Your task to perform on an android device: Open Chrome and go to settings Image 0: 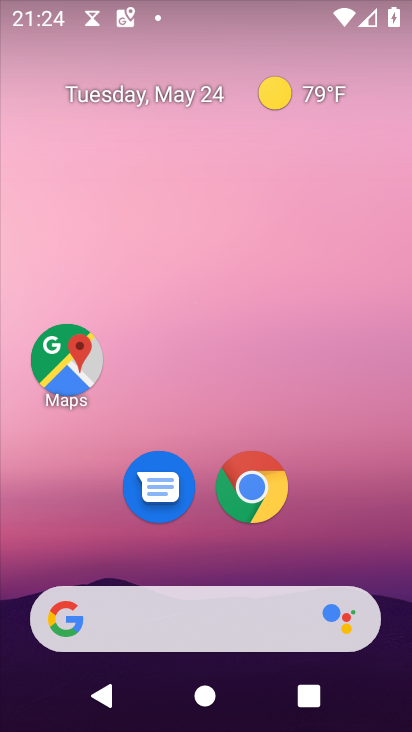
Step 0: press home button
Your task to perform on an android device: Open Chrome and go to settings Image 1: 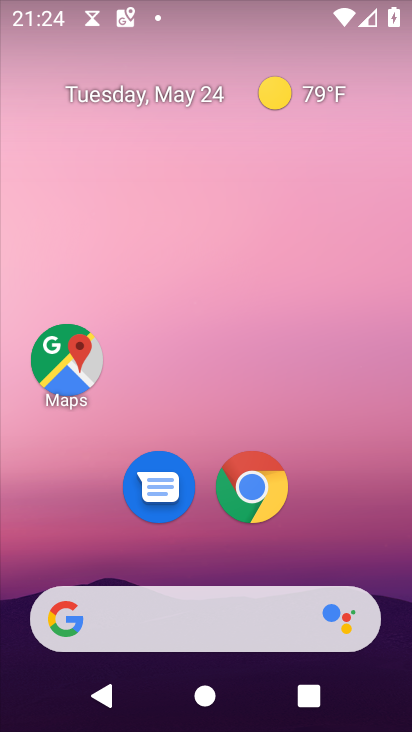
Step 1: click (253, 521)
Your task to perform on an android device: Open Chrome and go to settings Image 2: 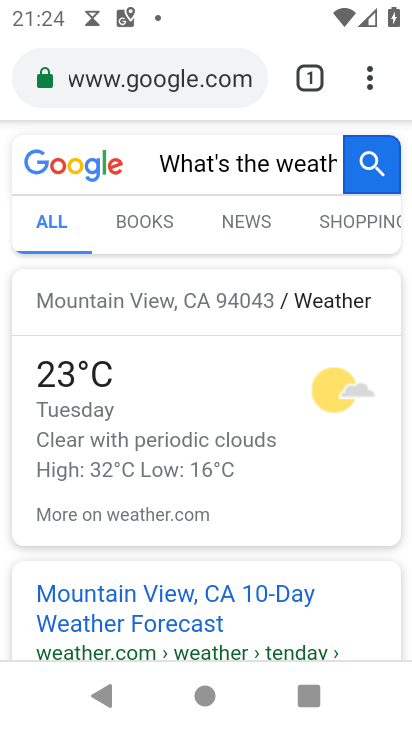
Step 2: task complete